Your task to perform on an android device: add a label to a message in the gmail app Image 0: 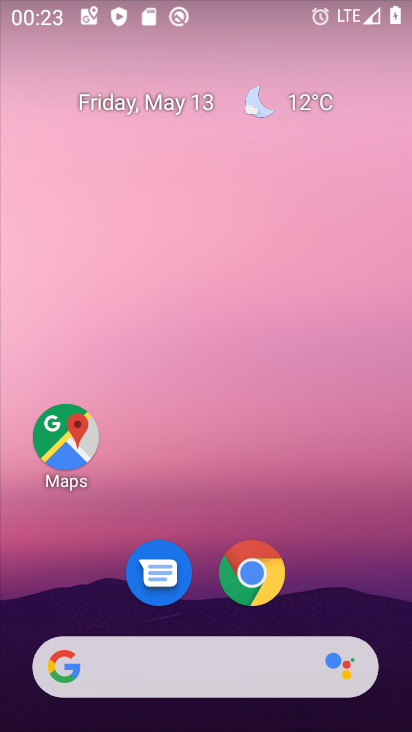
Step 0: drag from (214, 710) to (237, 16)
Your task to perform on an android device: add a label to a message in the gmail app Image 1: 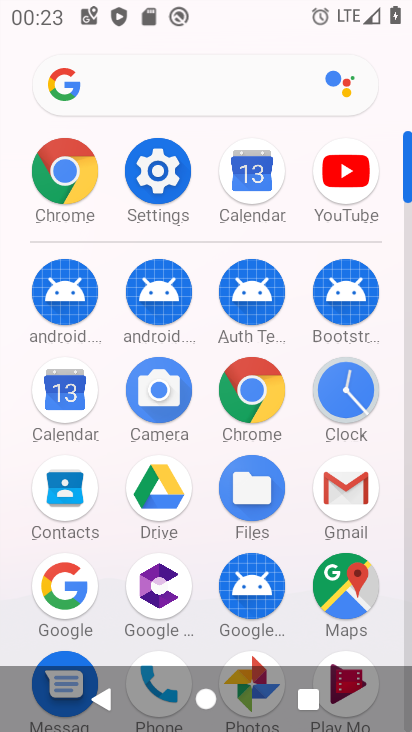
Step 1: click (342, 491)
Your task to perform on an android device: add a label to a message in the gmail app Image 2: 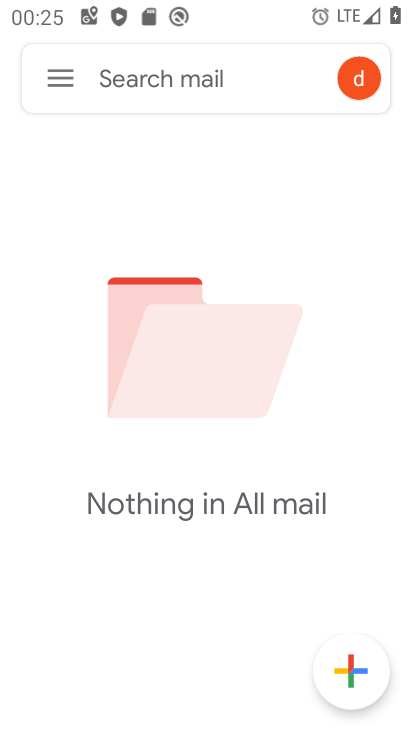
Step 2: task complete